Your task to perform on an android device: Open settings on Google Maps Image 0: 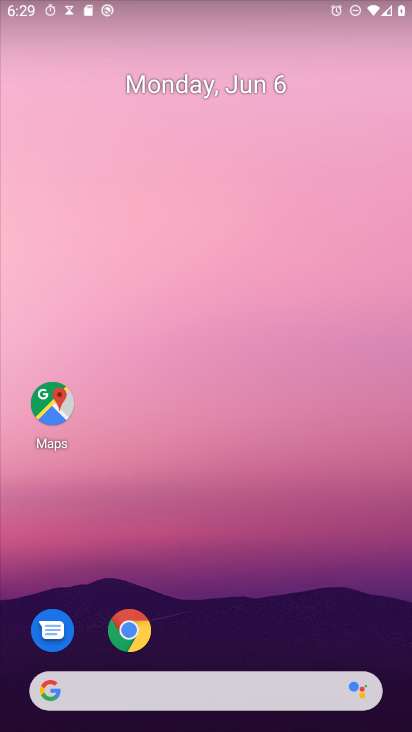
Step 0: click (44, 375)
Your task to perform on an android device: Open settings on Google Maps Image 1: 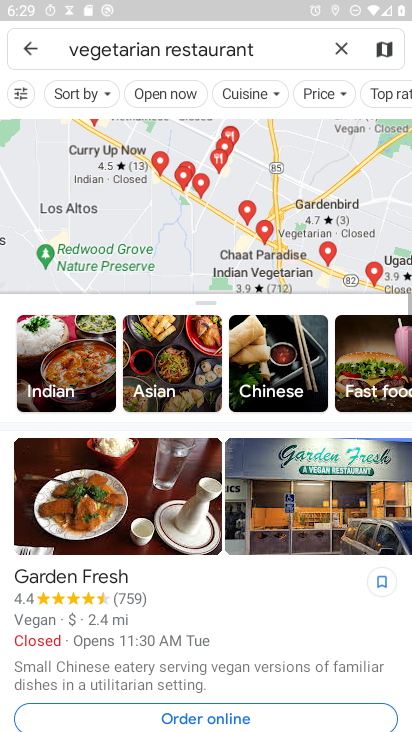
Step 1: click (33, 49)
Your task to perform on an android device: Open settings on Google Maps Image 2: 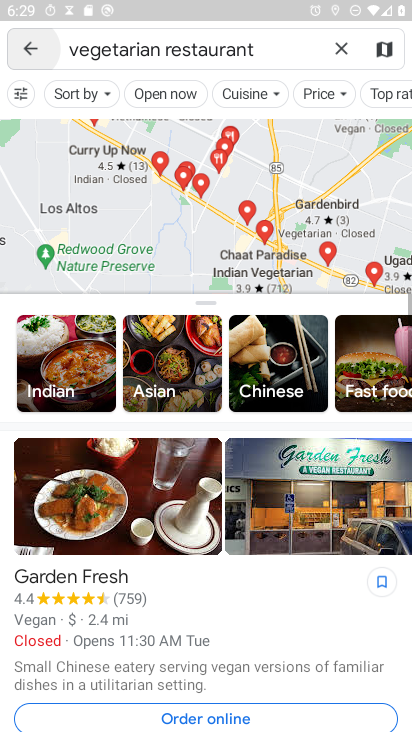
Step 2: click (33, 49)
Your task to perform on an android device: Open settings on Google Maps Image 3: 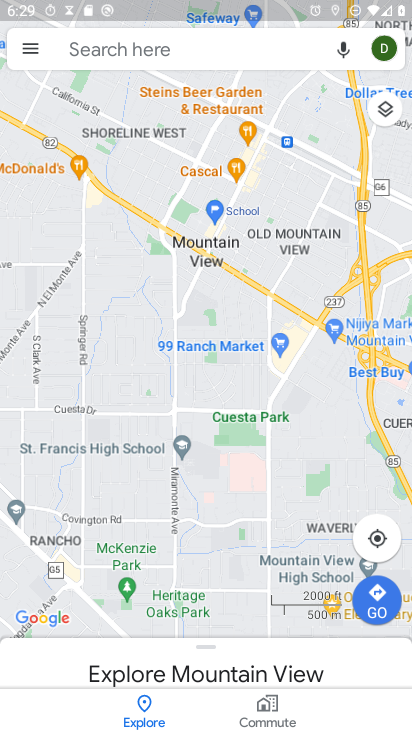
Step 3: click (33, 49)
Your task to perform on an android device: Open settings on Google Maps Image 4: 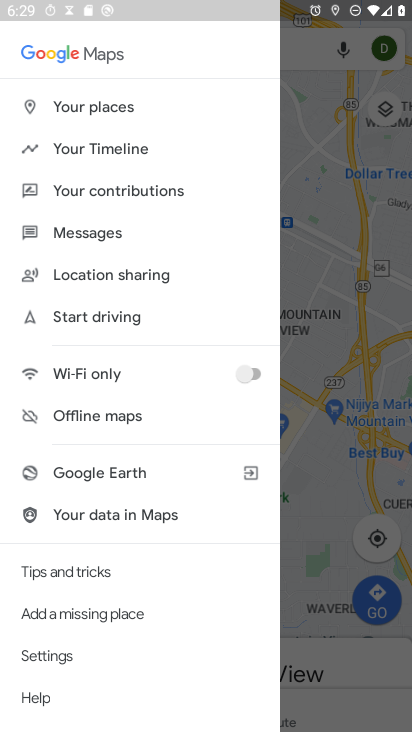
Step 4: click (107, 658)
Your task to perform on an android device: Open settings on Google Maps Image 5: 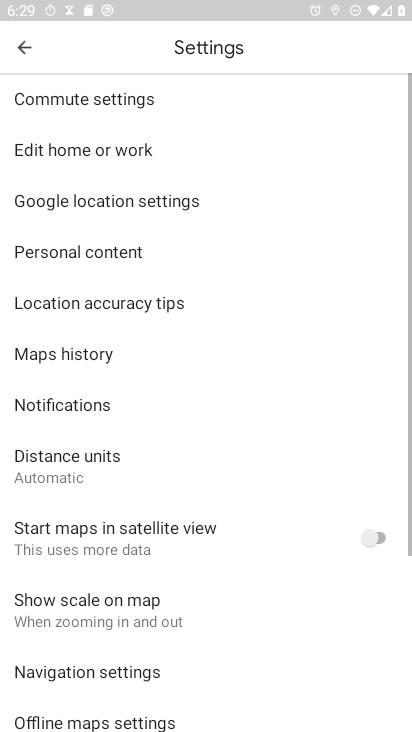
Step 5: task complete